Your task to perform on an android device: Check the news Image 0: 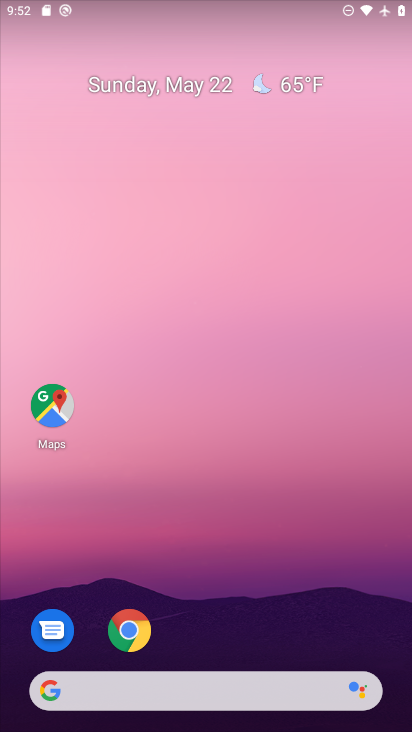
Step 0: press home button
Your task to perform on an android device: Check the news Image 1: 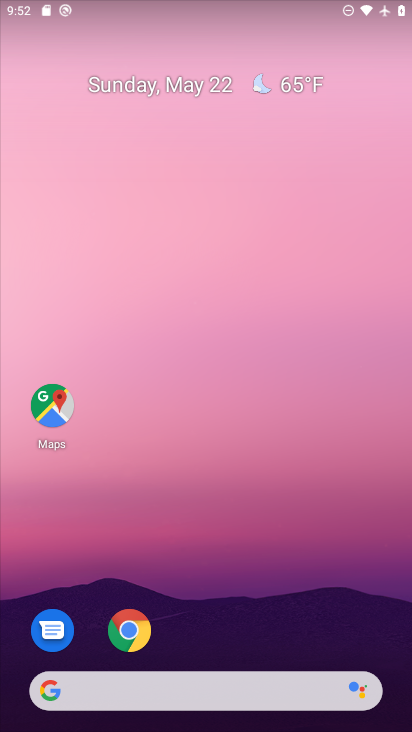
Step 1: click (55, 693)
Your task to perform on an android device: Check the news Image 2: 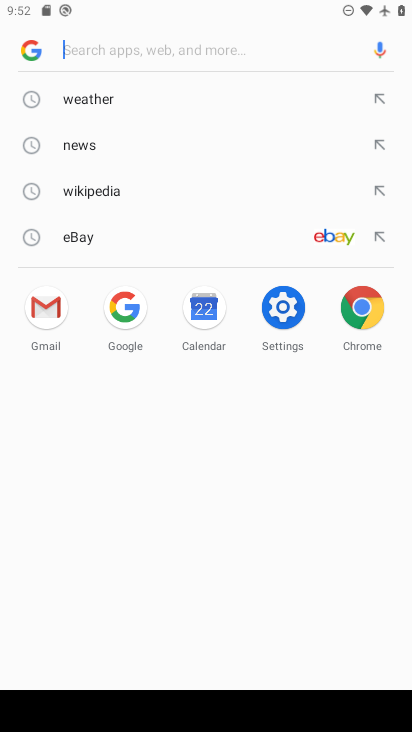
Step 2: click (81, 141)
Your task to perform on an android device: Check the news Image 3: 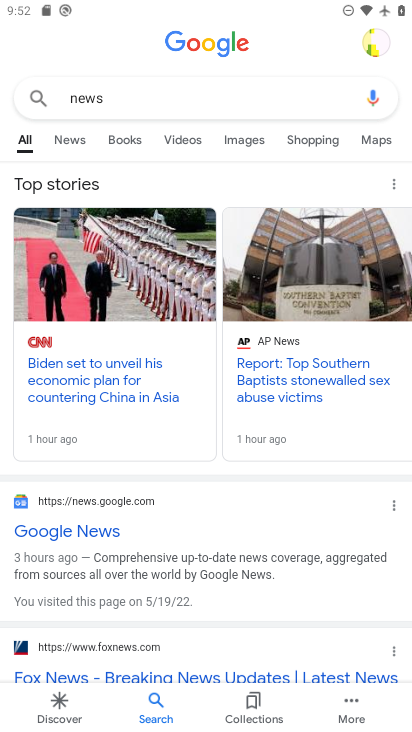
Step 3: click (65, 137)
Your task to perform on an android device: Check the news Image 4: 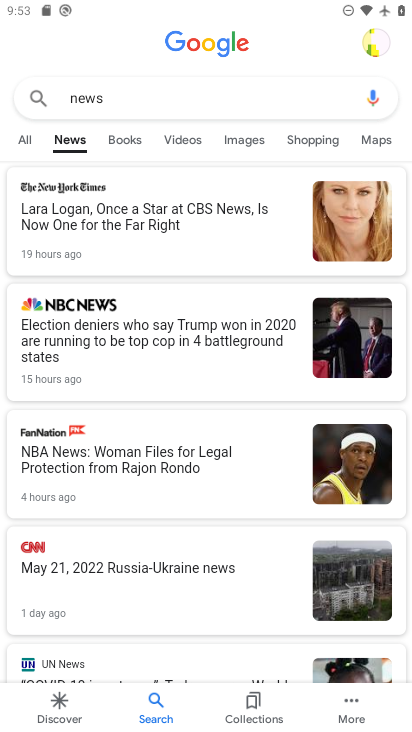
Step 4: task complete